Your task to perform on an android device: Go to battery settings Image 0: 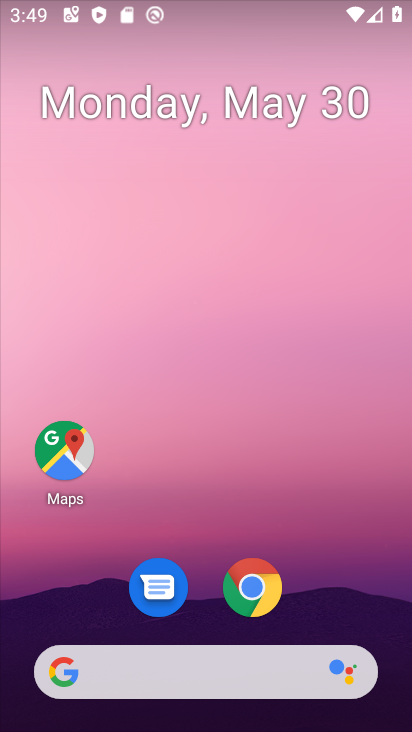
Step 0: drag from (246, 693) to (234, 0)
Your task to perform on an android device: Go to battery settings Image 1: 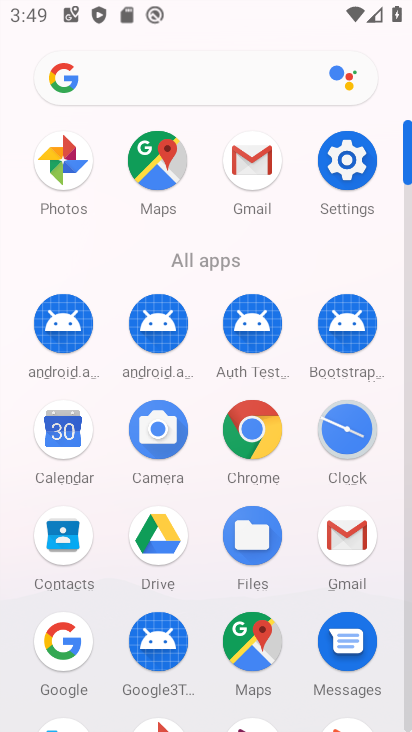
Step 1: click (335, 173)
Your task to perform on an android device: Go to battery settings Image 2: 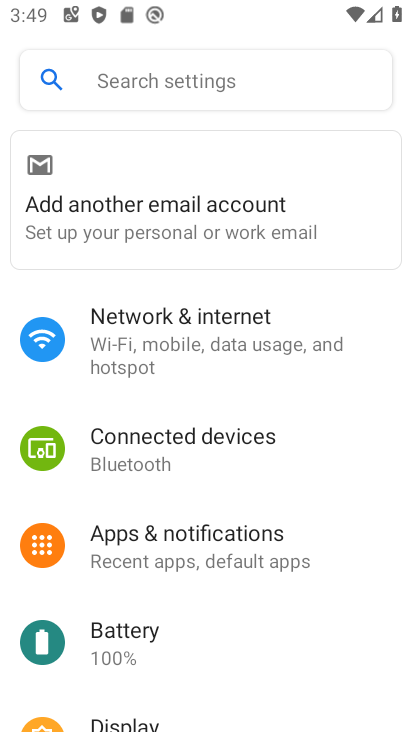
Step 2: click (158, 647)
Your task to perform on an android device: Go to battery settings Image 3: 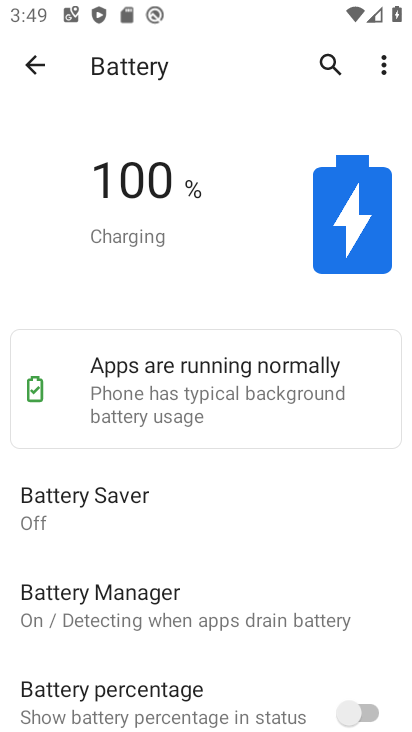
Step 3: task complete